Your task to perform on an android device: Play the new Beyonce video on YouTube Image 0: 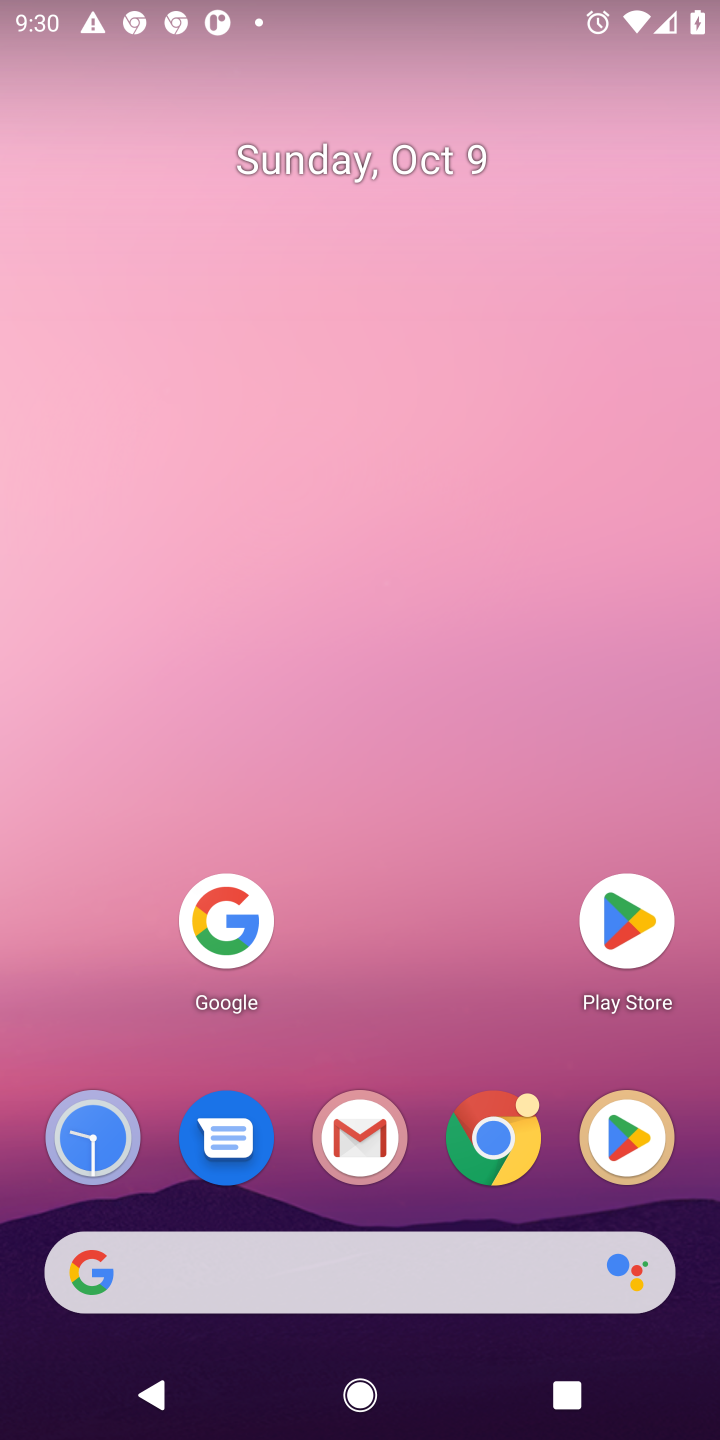
Step 0: click (212, 924)
Your task to perform on an android device: Play the new Beyonce video on YouTube Image 1: 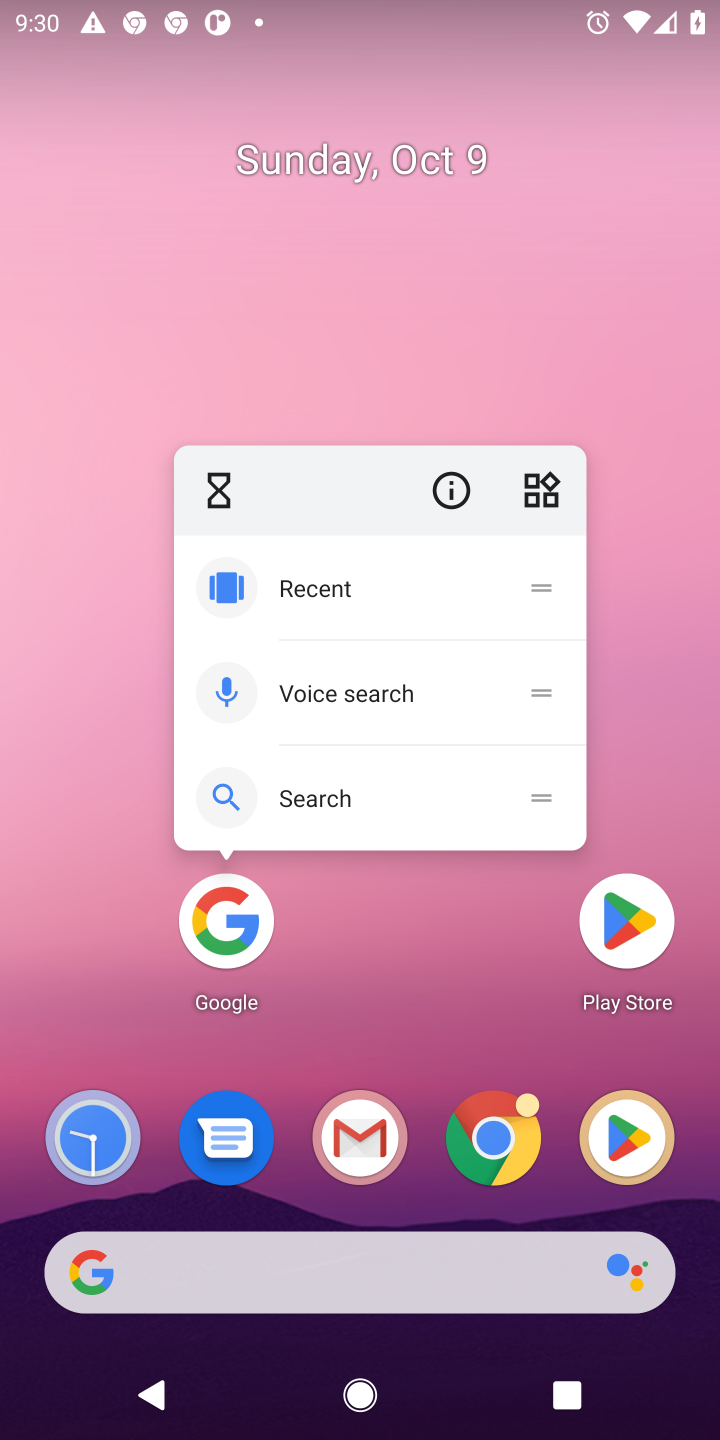
Step 1: click (209, 911)
Your task to perform on an android device: Play the new Beyonce video on YouTube Image 2: 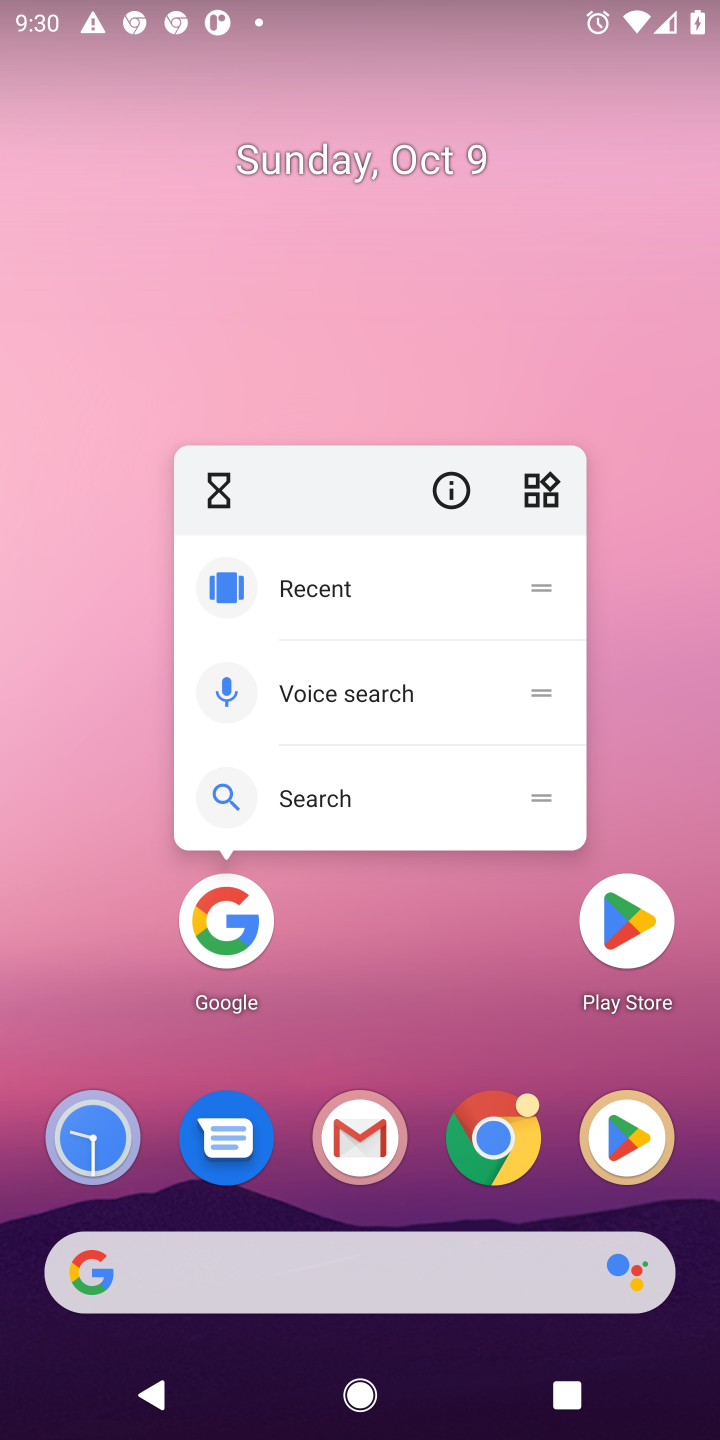
Step 2: click (217, 924)
Your task to perform on an android device: Play the new Beyonce video on YouTube Image 3: 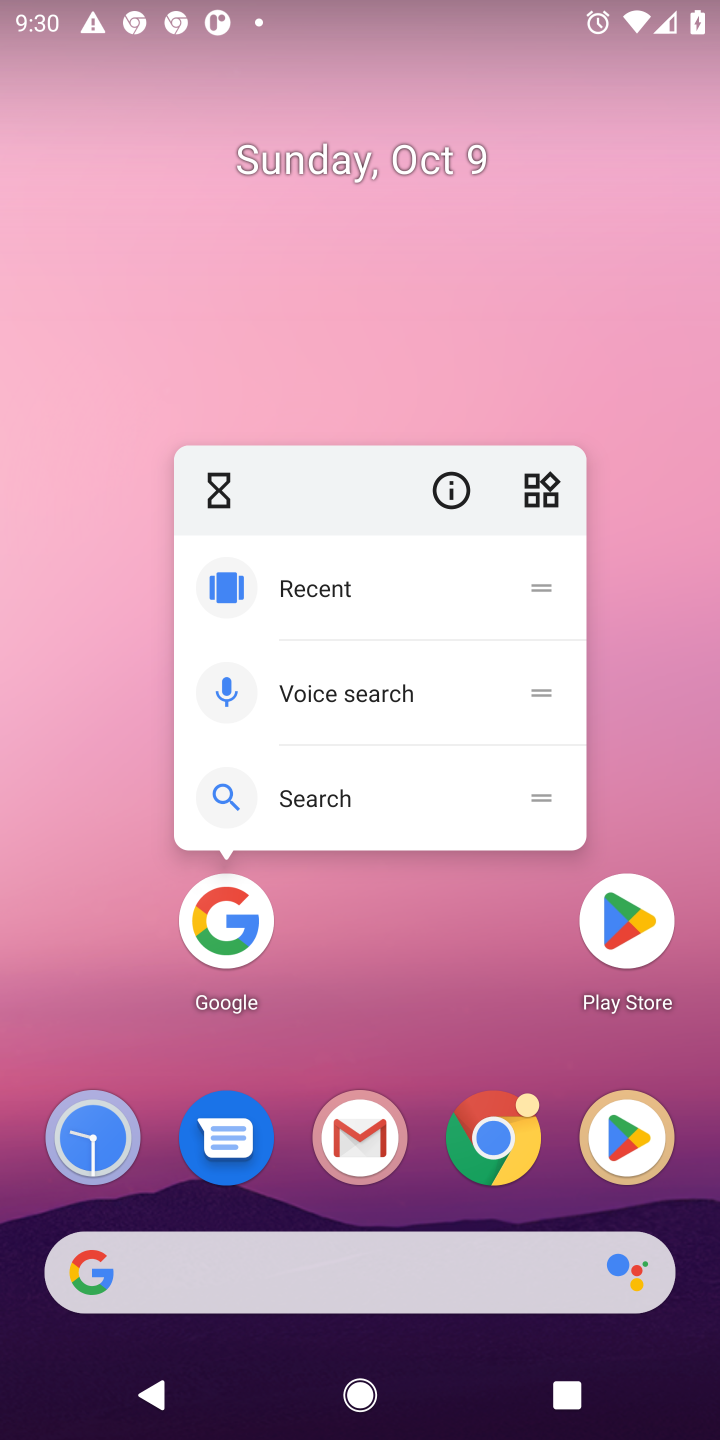
Step 3: click (217, 924)
Your task to perform on an android device: Play the new Beyonce video on YouTube Image 4: 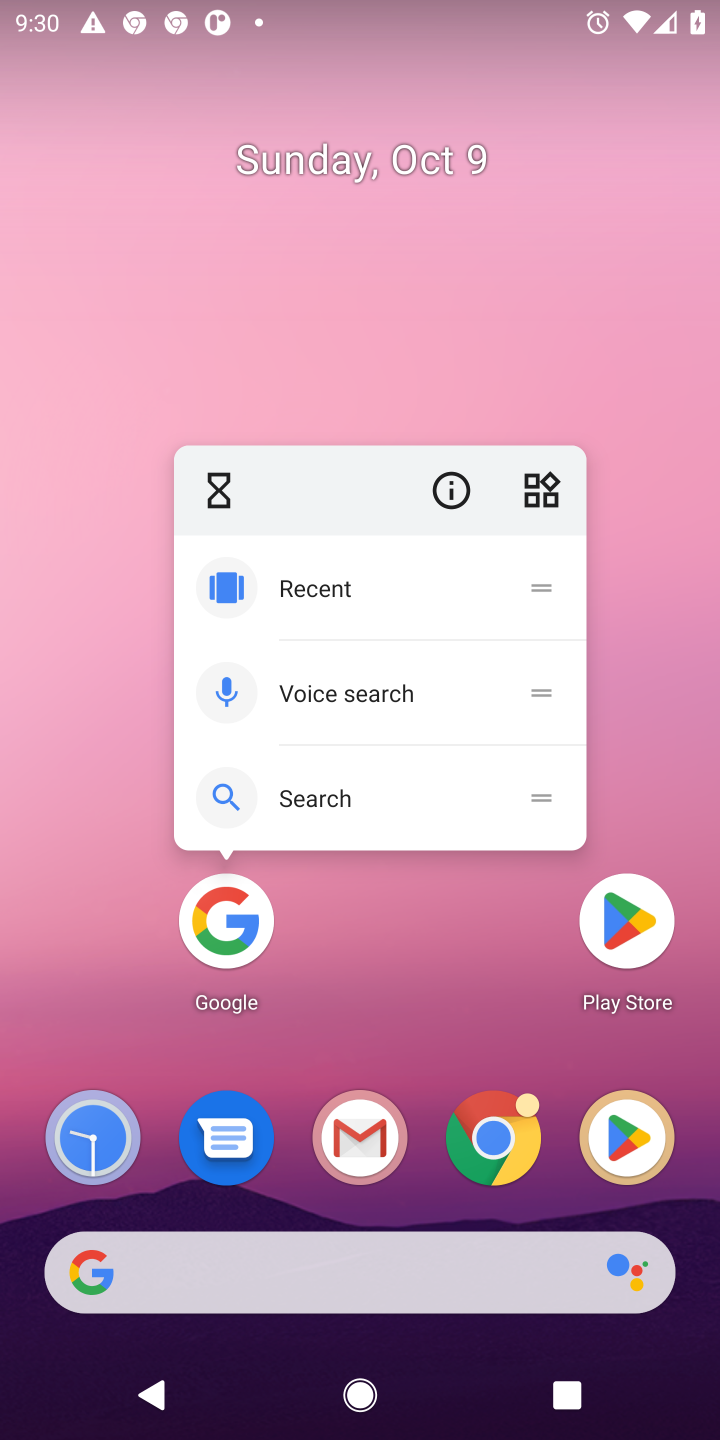
Step 4: click (217, 924)
Your task to perform on an android device: Play the new Beyonce video on YouTube Image 5: 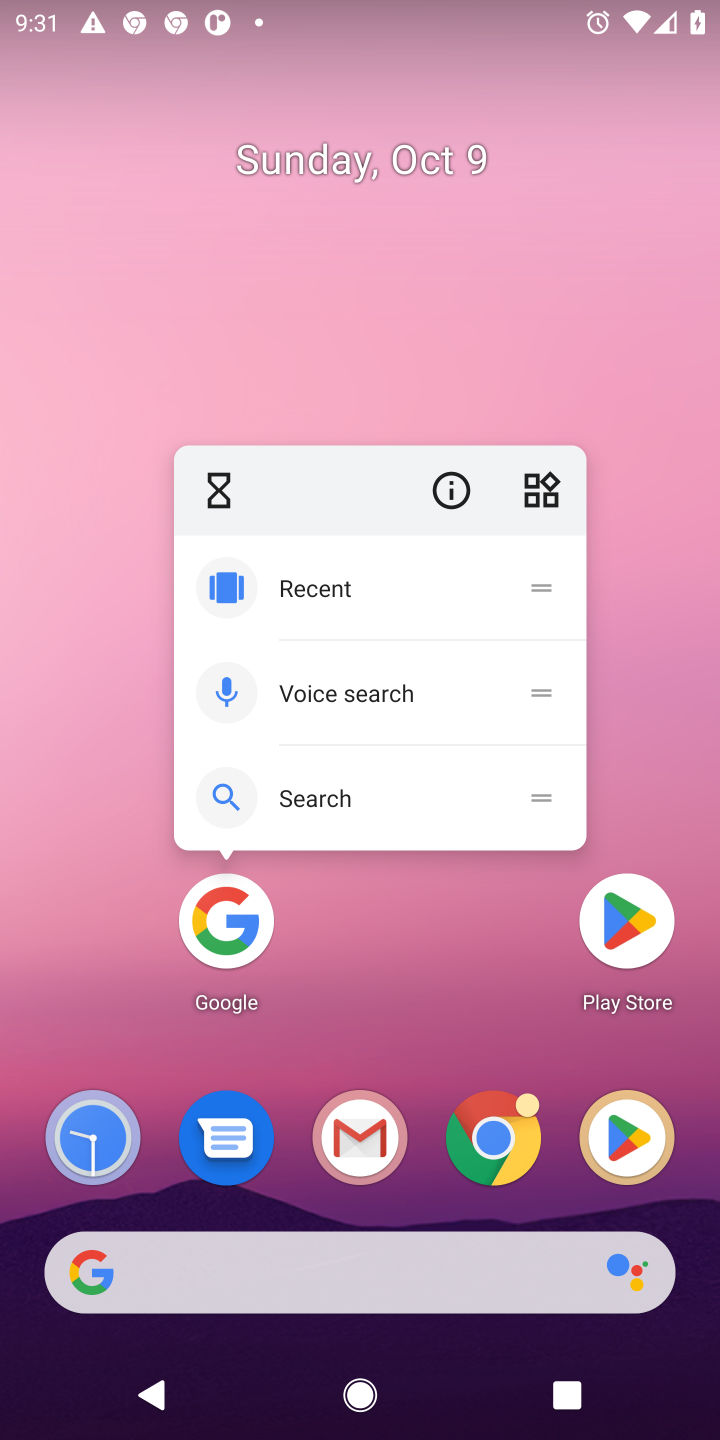
Step 5: click (204, 932)
Your task to perform on an android device: Play the new Beyonce video on YouTube Image 6: 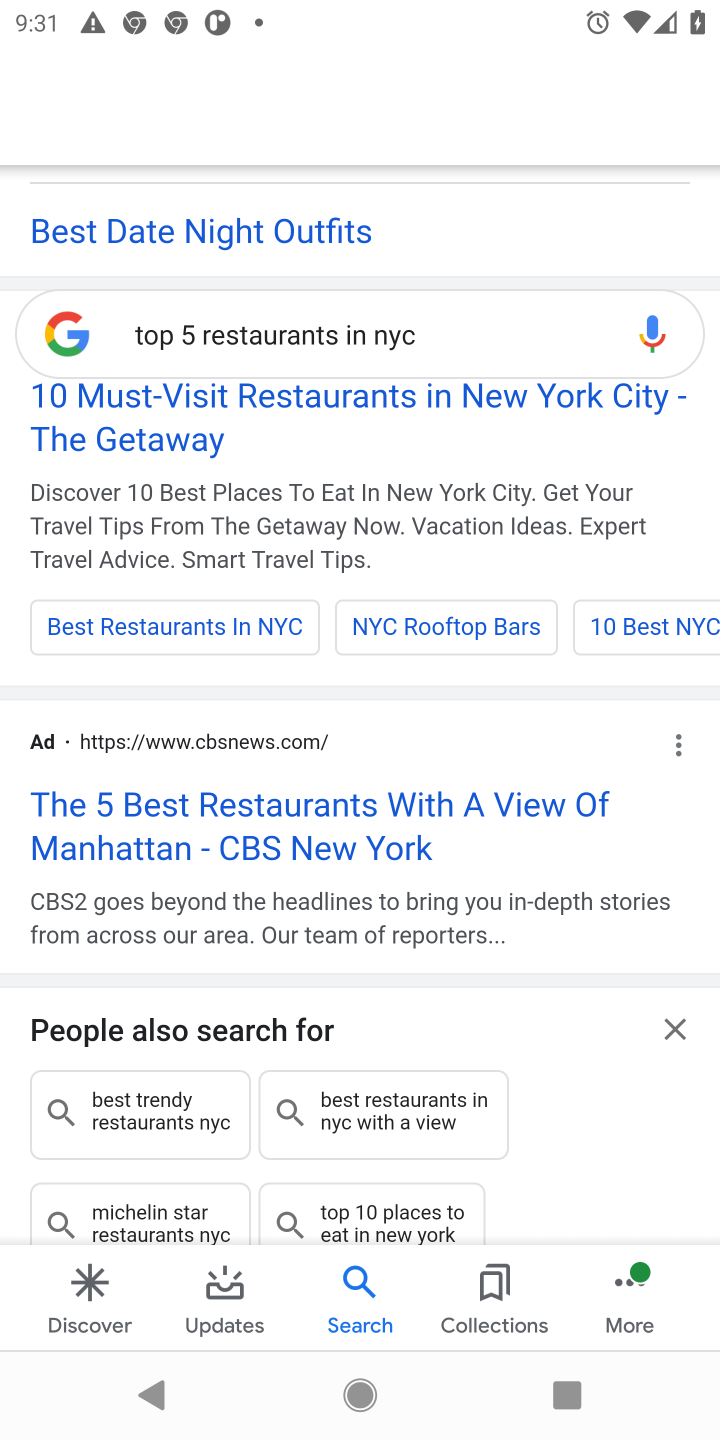
Step 6: click (418, 324)
Your task to perform on an android device: Play the new Beyonce video on YouTube Image 7: 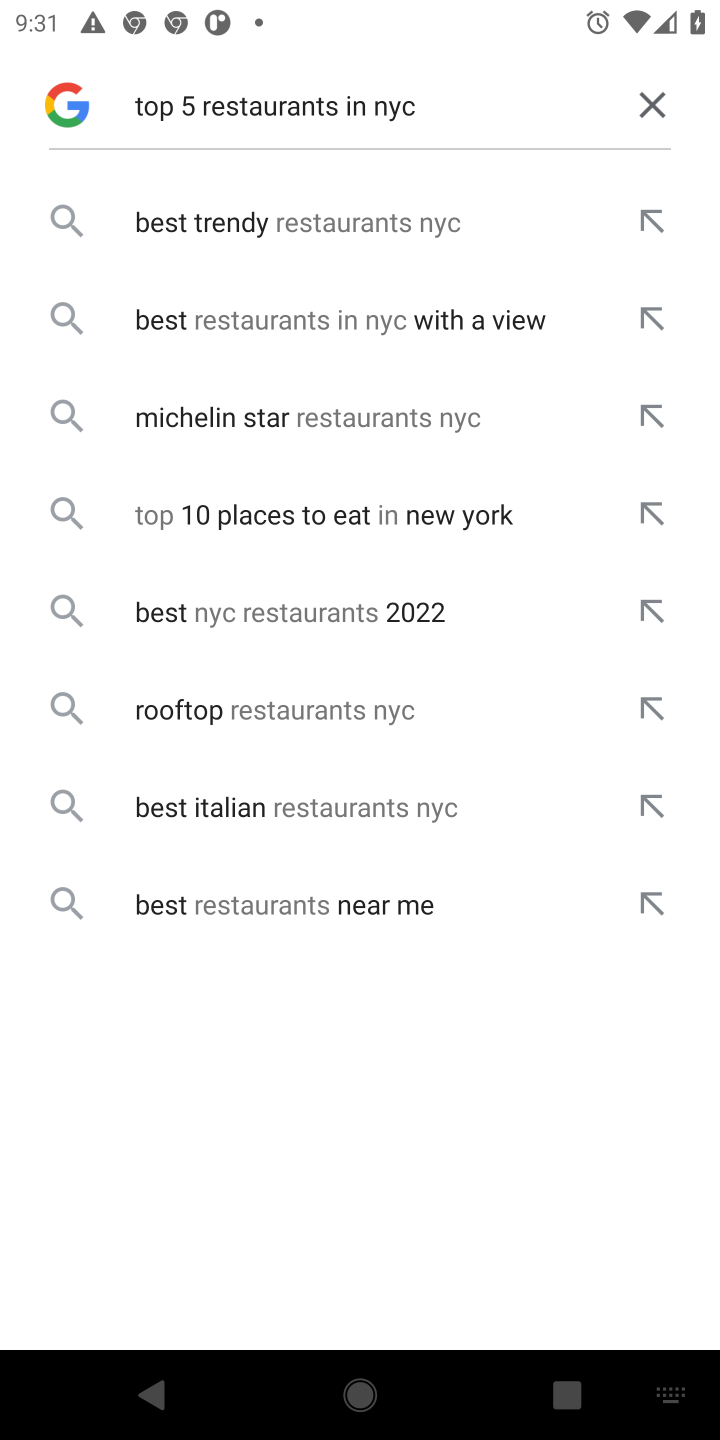
Step 7: click (645, 103)
Your task to perform on an android device: Play the new Beyonce video on YouTube Image 8: 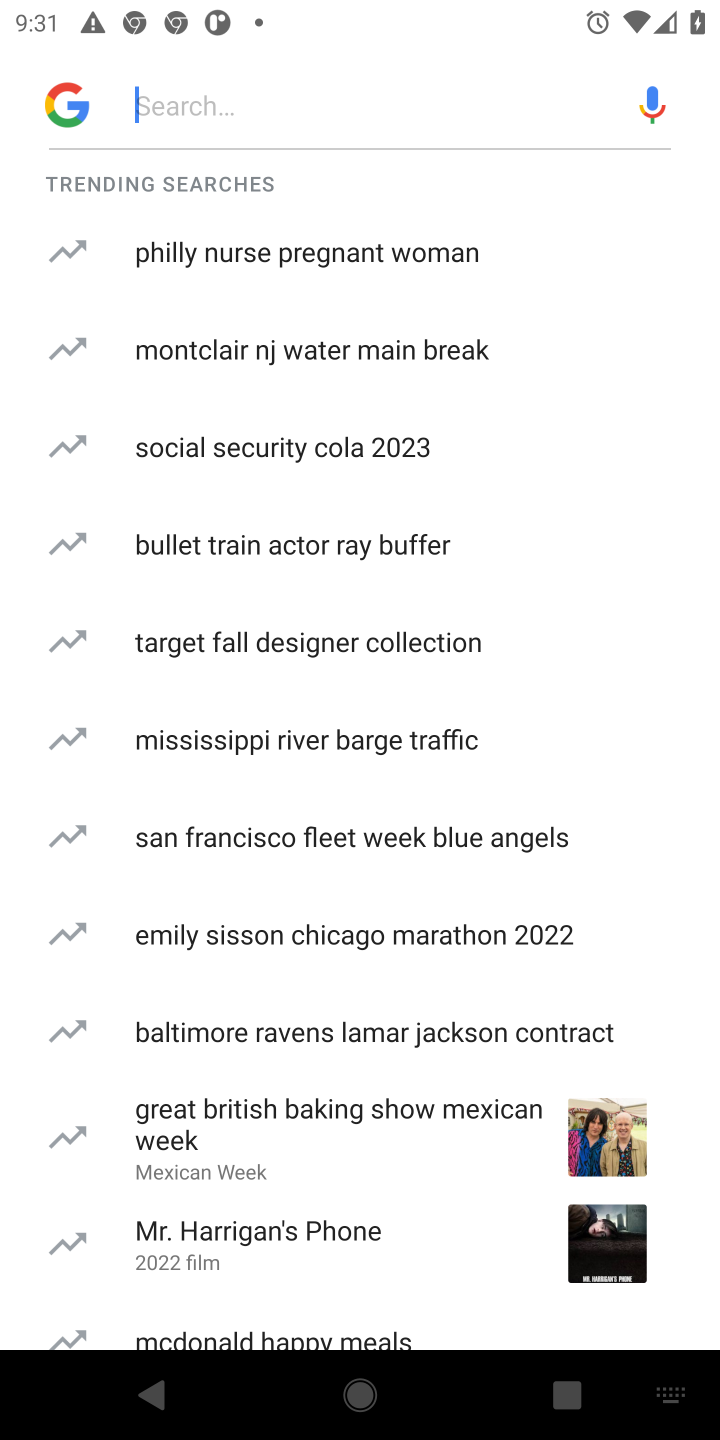
Step 8: click (314, 123)
Your task to perform on an android device: Play the new Beyonce video on YouTube Image 9: 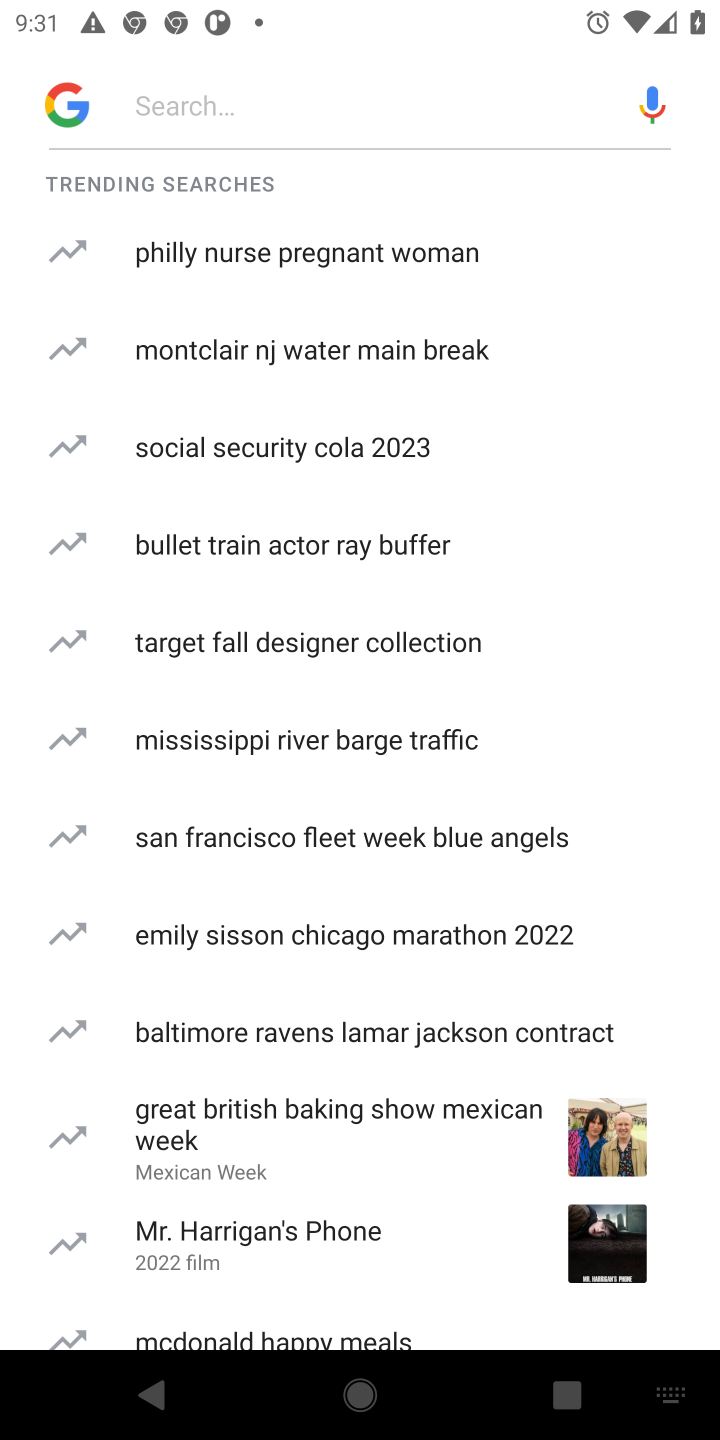
Step 9: type "Play the new Beyonce video on YouTube "
Your task to perform on an android device: Play the new Beyonce video on YouTube Image 10: 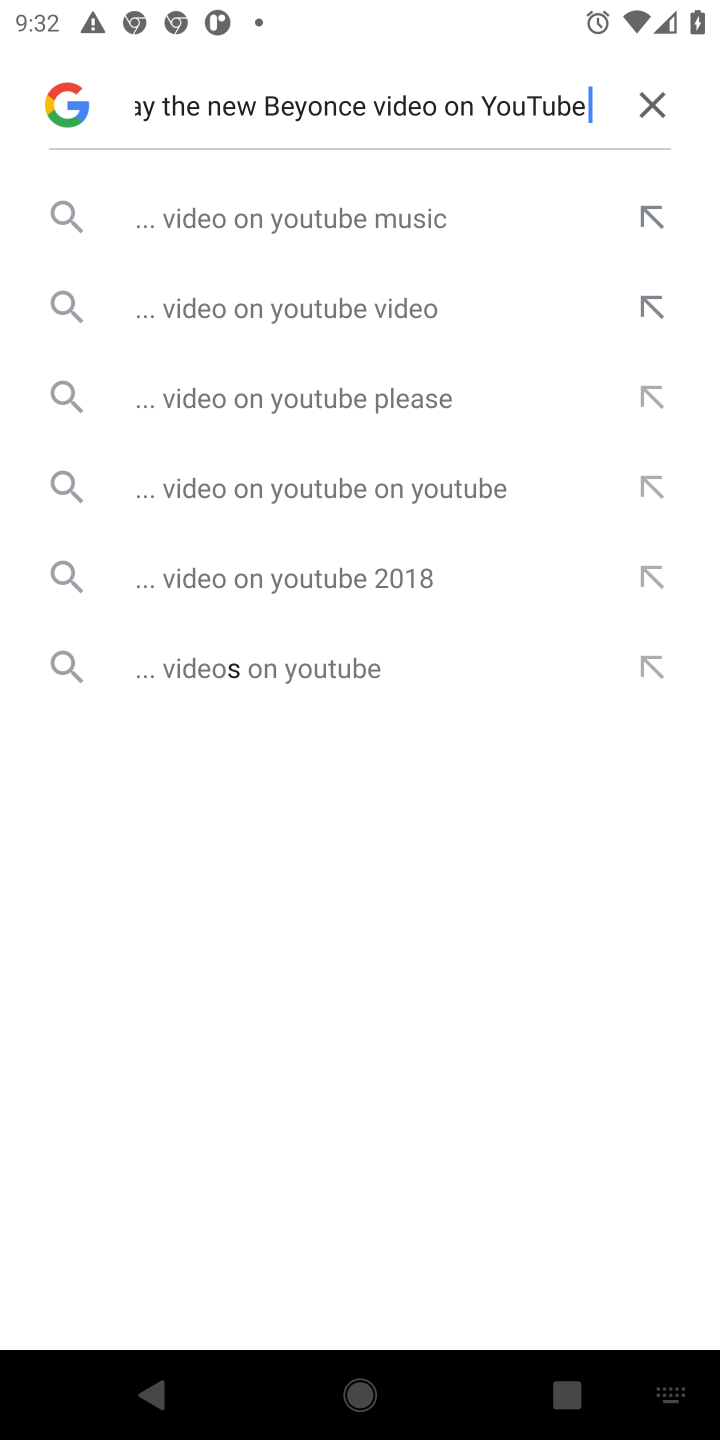
Step 10: click (294, 221)
Your task to perform on an android device: Play the new Beyonce video on YouTube Image 11: 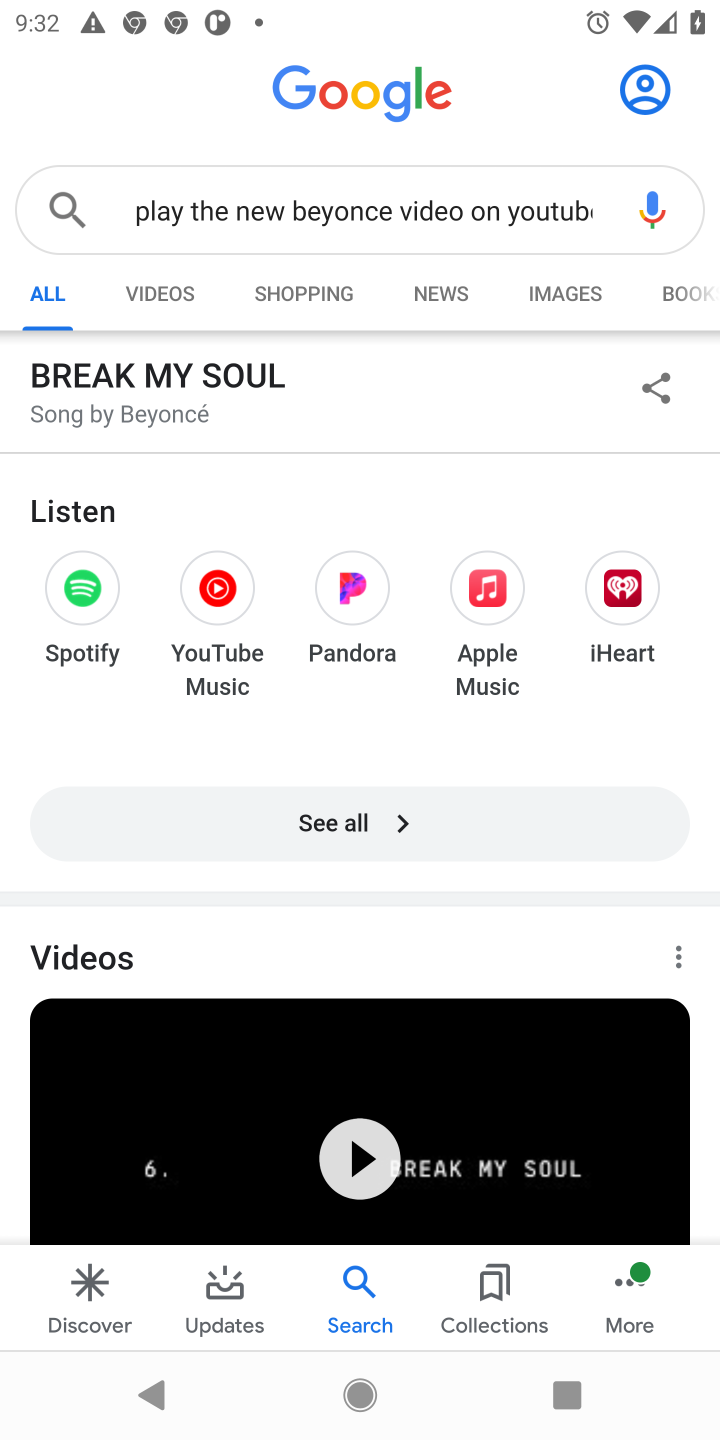
Step 11: click (201, 577)
Your task to perform on an android device: Play the new Beyonce video on YouTube Image 12: 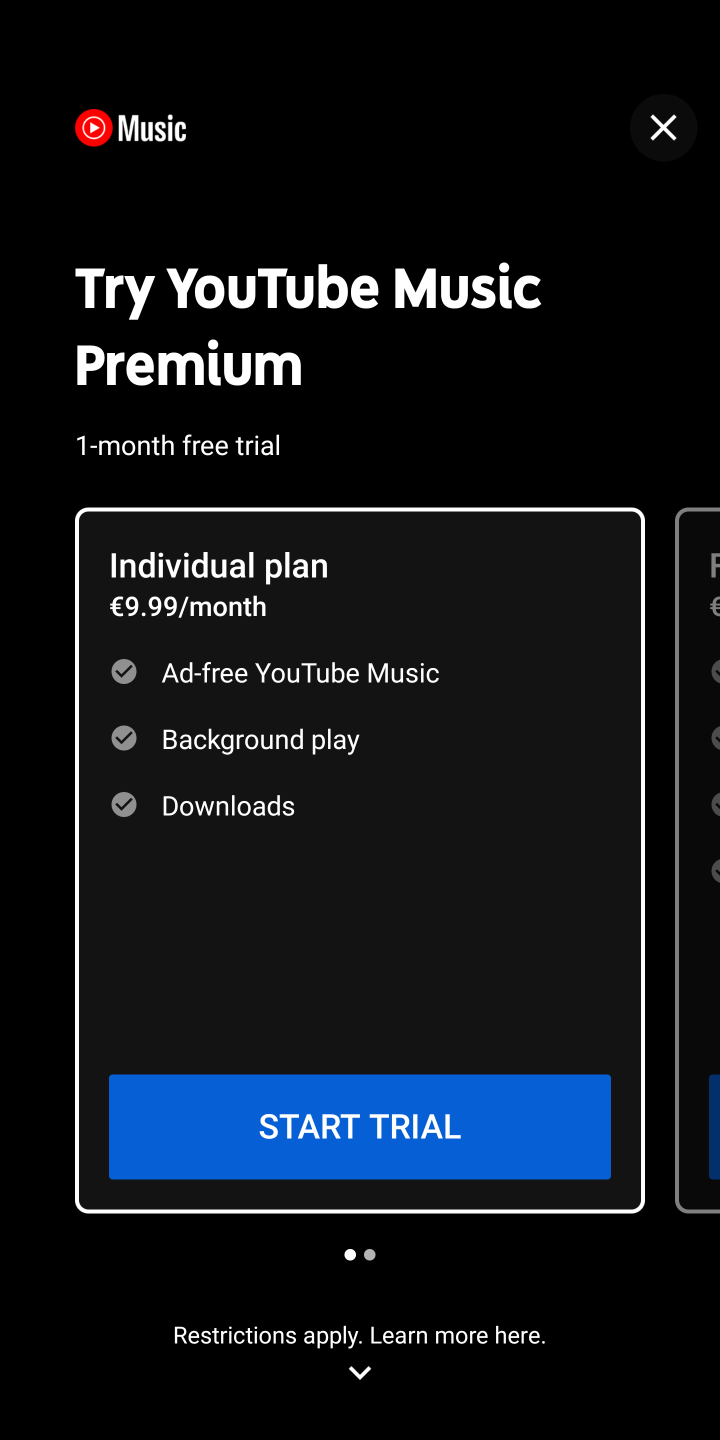
Step 12: click (670, 136)
Your task to perform on an android device: Play the new Beyonce video on YouTube Image 13: 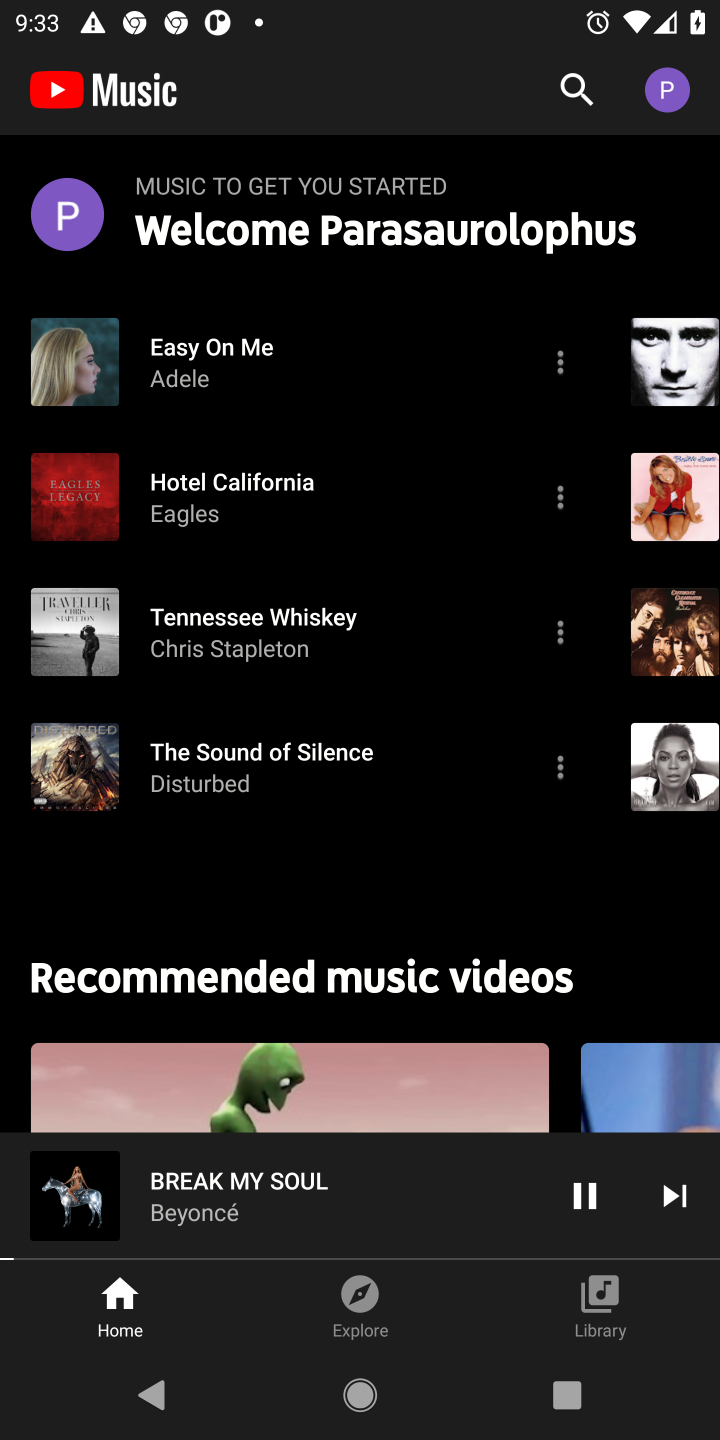
Step 13: task complete